Your task to perform on an android device: uninstall "Google Find My Device" Image 0: 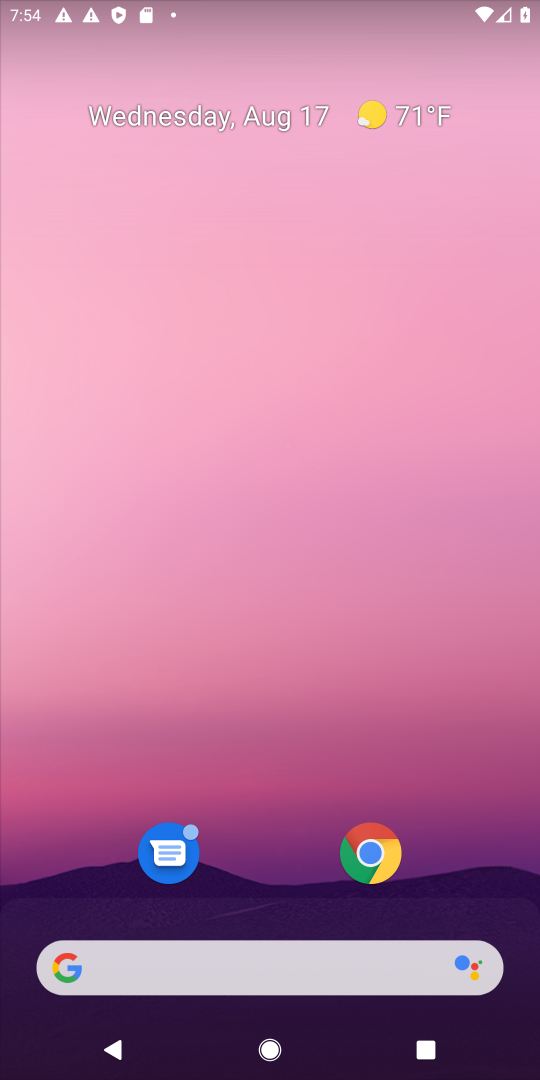
Step 0: drag from (255, 817) to (285, 172)
Your task to perform on an android device: uninstall "Google Find My Device" Image 1: 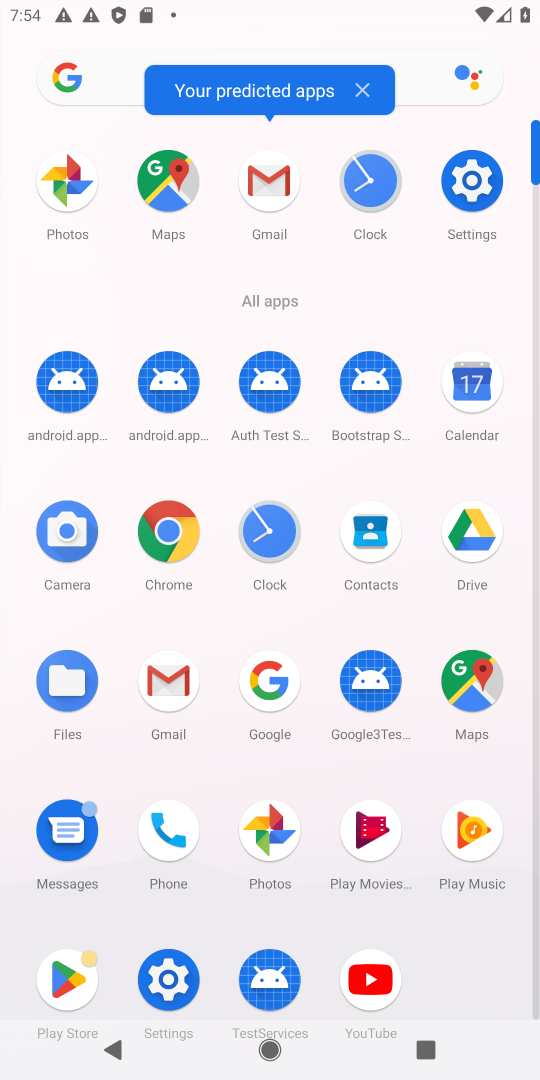
Step 1: click (71, 976)
Your task to perform on an android device: uninstall "Google Find My Device" Image 2: 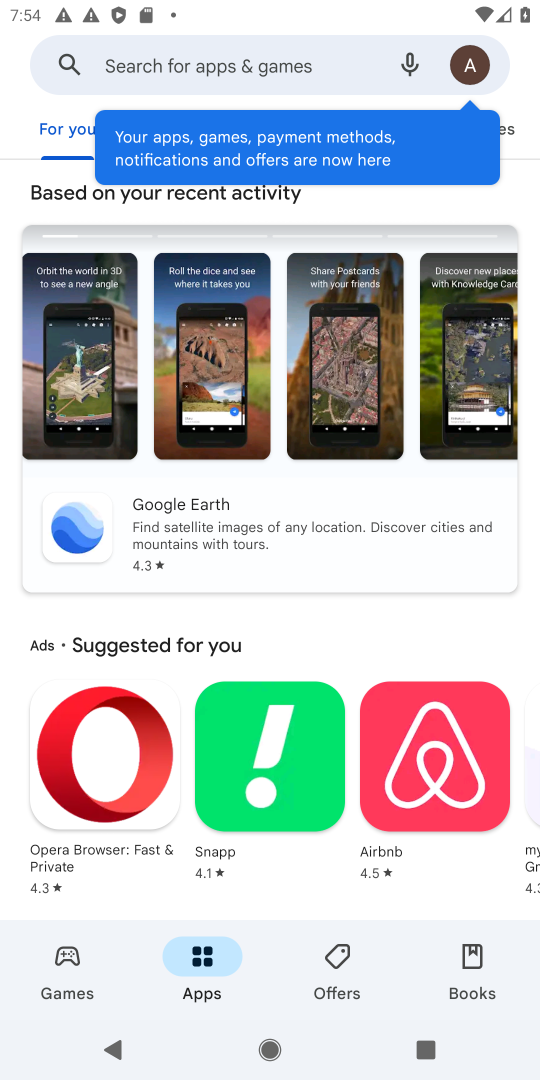
Step 2: click (223, 63)
Your task to perform on an android device: uninstall "Google Find My Device" Image 3: 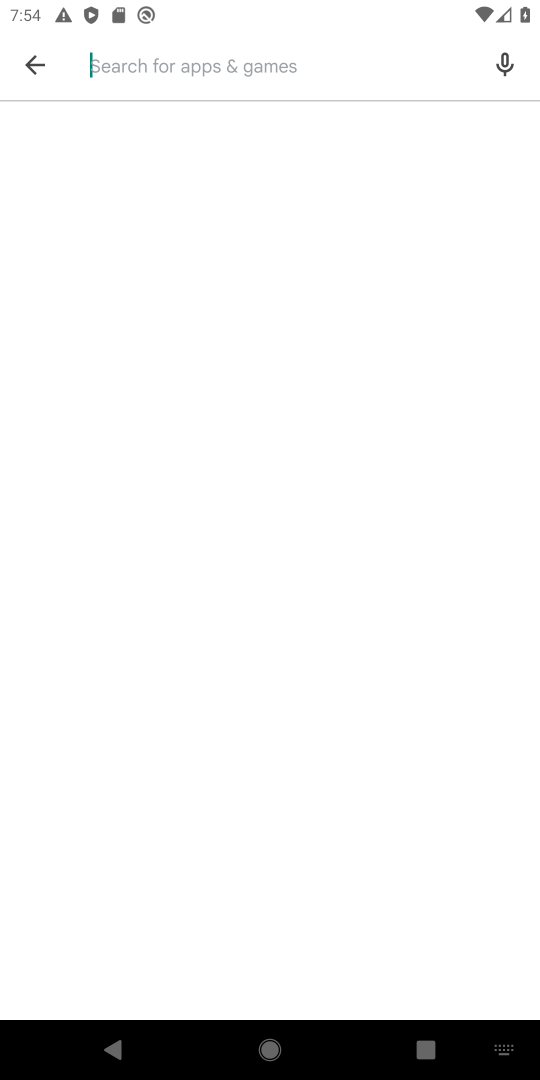
Step 3: type "Google Find My Device"
Your task to perform on an android device: uninstall "Google Find My Device" Image 4: 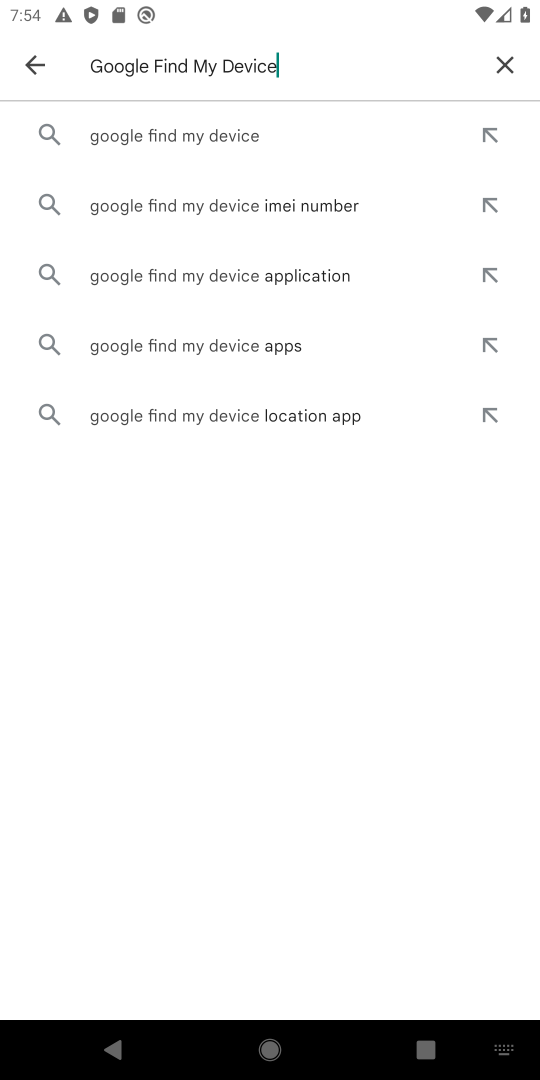
Step 4: click (211, 141)
Your task to perform on an android device: uninstall "Google Find My Device" Image 5: 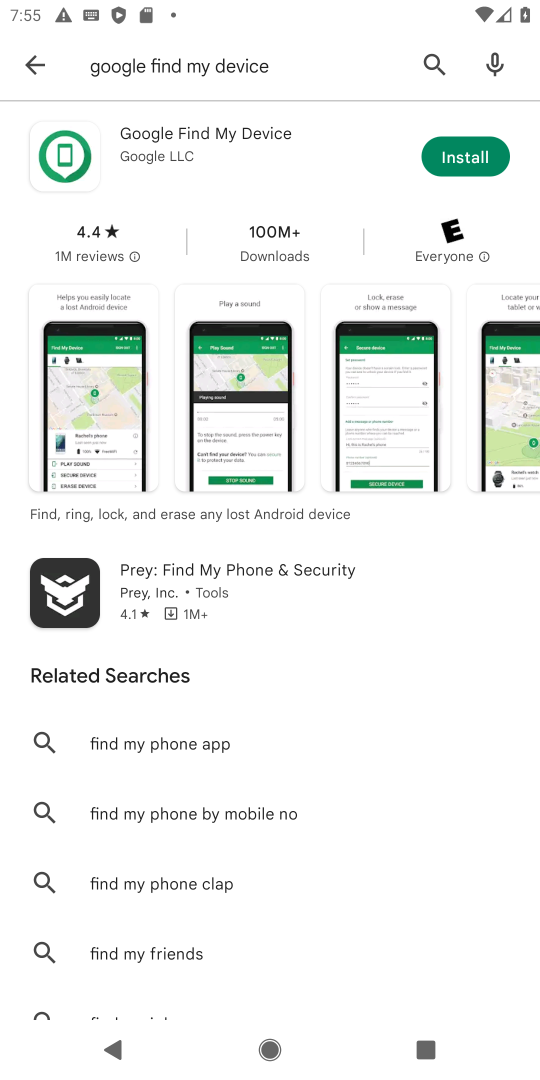
Step 5: task complete